Your task to perform on an android device: turn smart compose on in the gmail app Image 0: 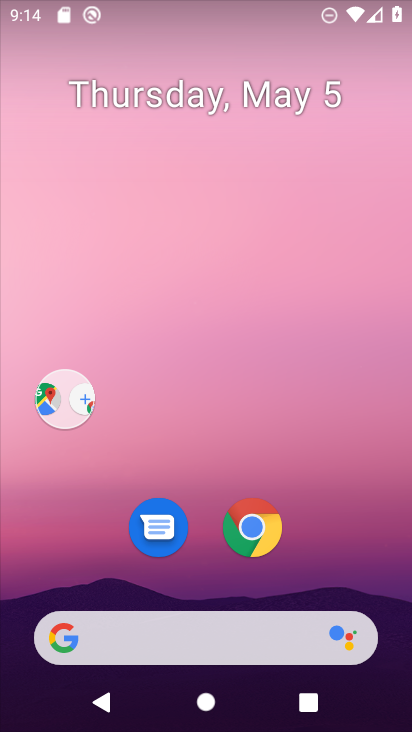
Step 0: drag from (392, 590) to (238, 4)
Your task to perform on an android device: turn smart compose on in the gmail app Image 1: 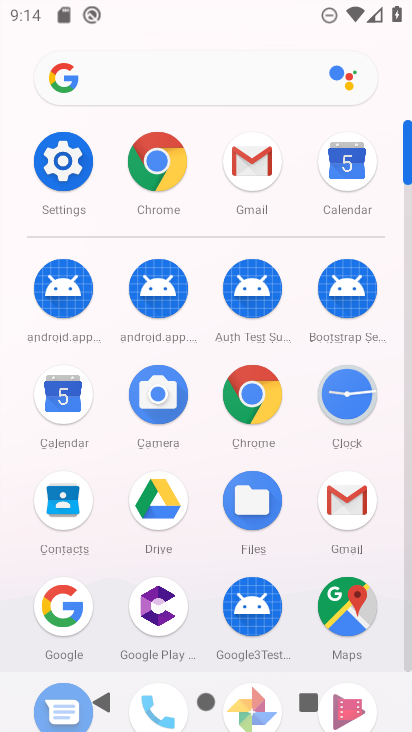
Step 1: click (343, 504)
Your task to perform on an android device: turn smart compose on in the gmail app Image 2: 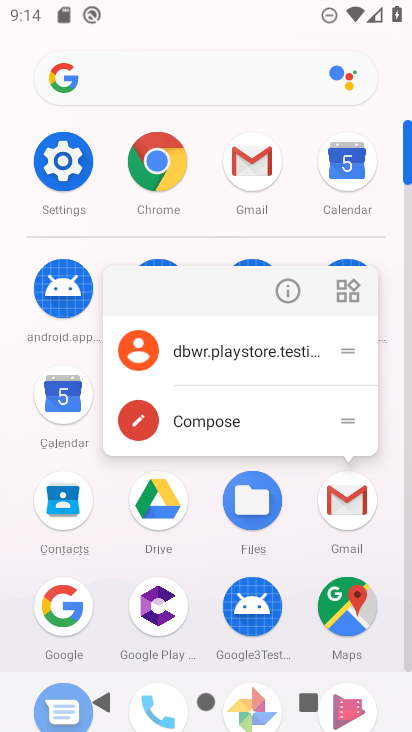
Step 2: click (343, 504)
Your task to perform on an android device: turn smart compose on in the gmail app Image 3: 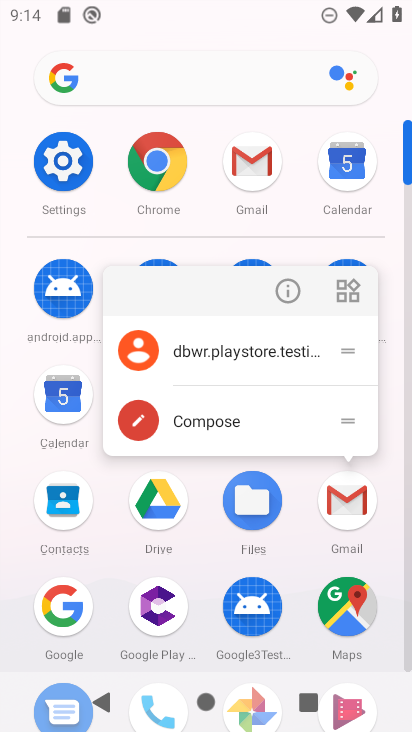
Step 3: click (243, 418)
Your task to perform on an android device: turn smart compose on in the gmail app Image 4: 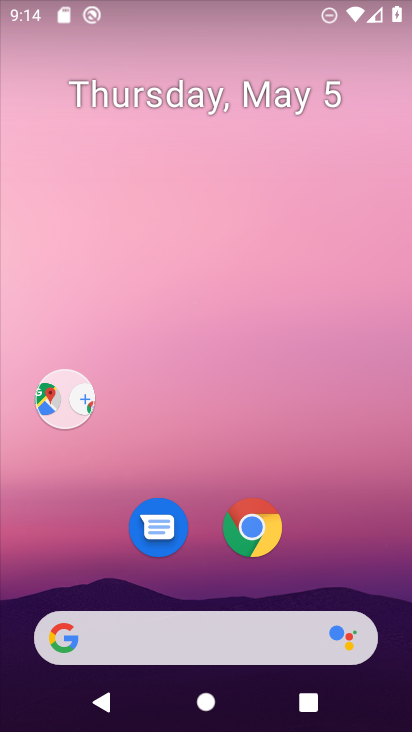
Step 4: drag from (364, 567) to (231, 235)
Your task to perform on an android device: turn smart compose on in the gmail app Image 5: 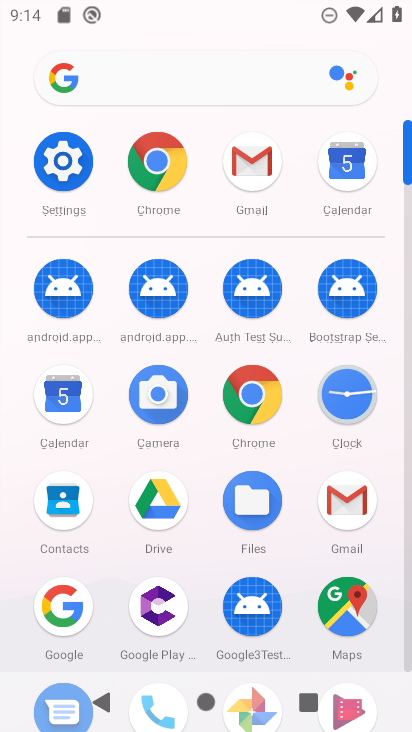
Step 5: click (339, 492)
Your task to perform on an android device: turn smart compose on in the gmail app Image 6: 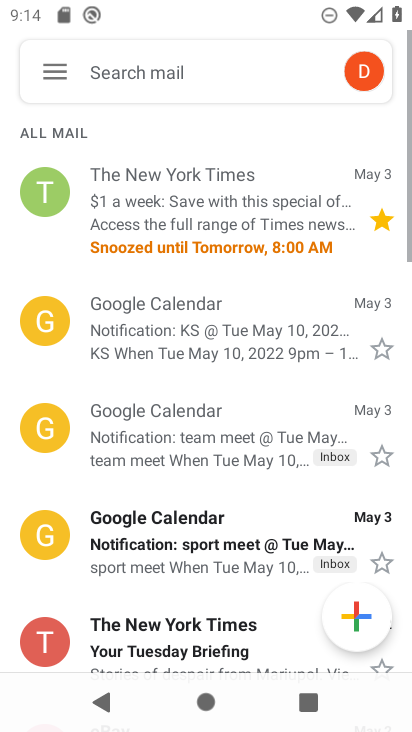
Step 6: click (339, 493)
Your task to perform on an android device: turn smart compose on in the gmail app Image 7: 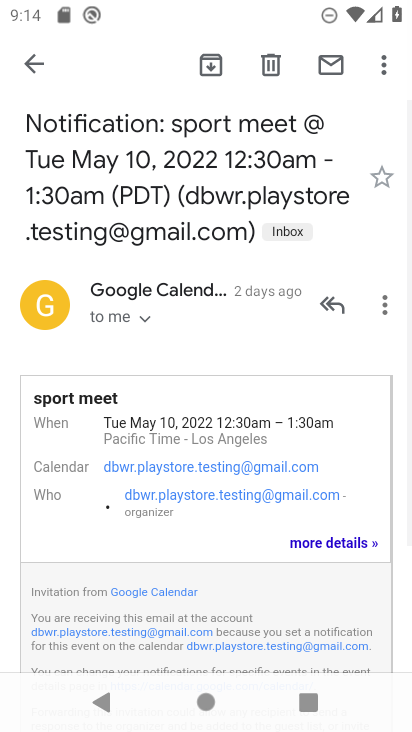
Step 7: click (25, 61)
Your task to perform on an android device: turn smart compose on in the gmail app Image 8: 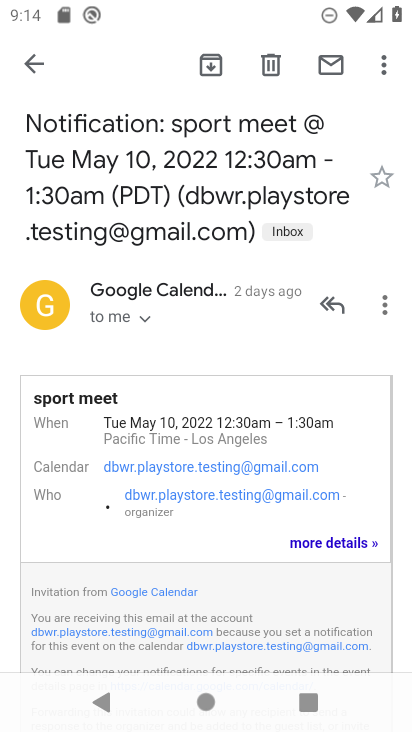
Step 8: click (30, 62)
Your task to perform on an android device: turn smart compose on in the gmail app Image 9: 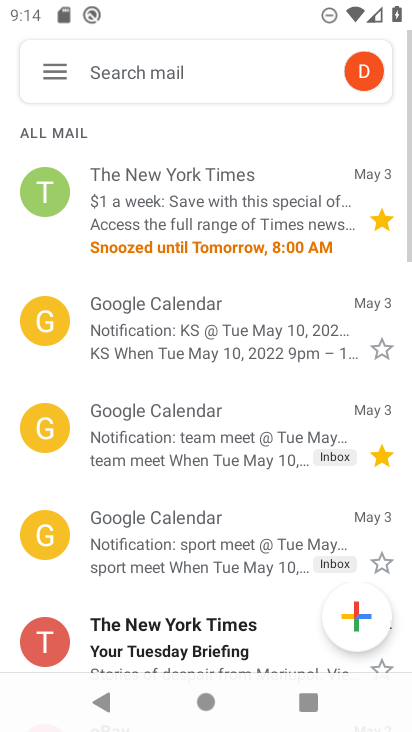
Step 9: click (46, 74)
Your task to perform on an android device: turn smart compose on in the gmail app Image 10: 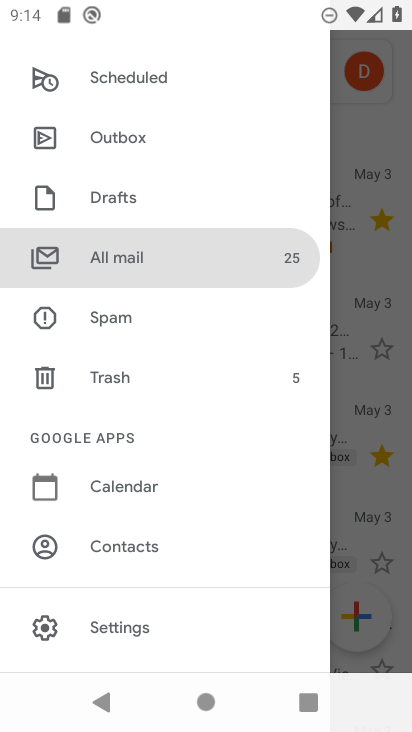
Step 10: click (120, 622)
Your task to perform on an android device: turn smart compose on in the gmail app Image 11: 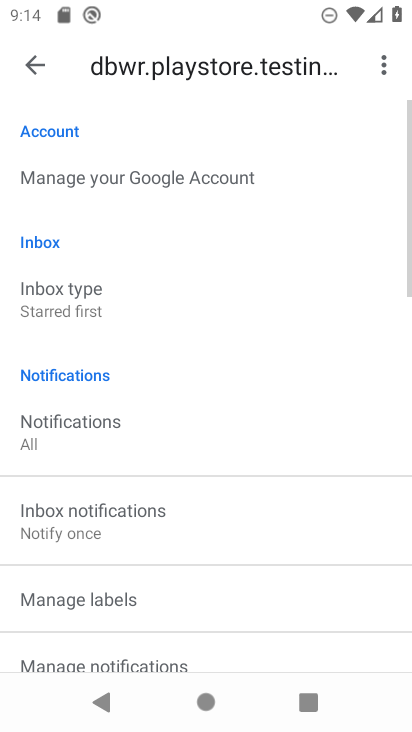
Step 11: drag from (134, 532) to (91, 10)
Your task to perform on an android device: turn smart compose on in the gmail app Image 12: 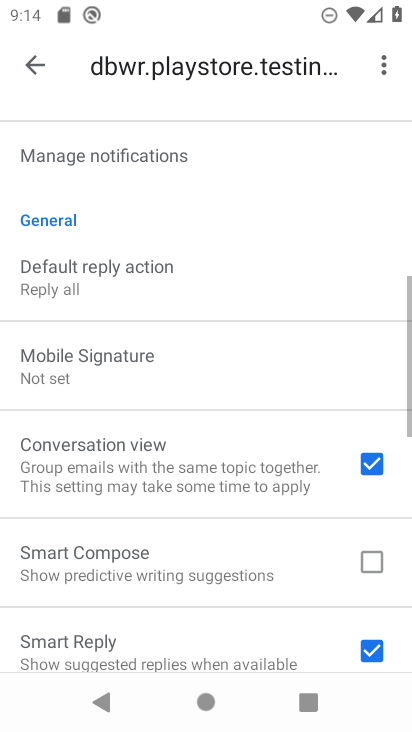
Step 12: drag from (144, 499) to (160, 15)
Your task to perform on an android device: turn smart compose on in the gmail app Image 13: 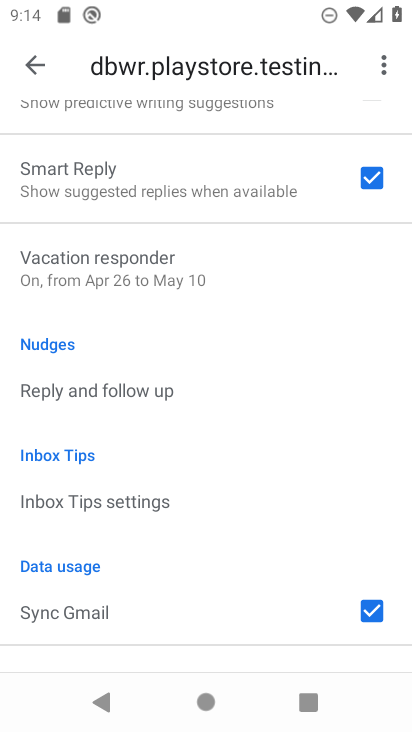
Step 13: drag from (177, 300) to (319, 560)
Your task to perform on an android device: turn smart compose on in the gmail app Image 14: 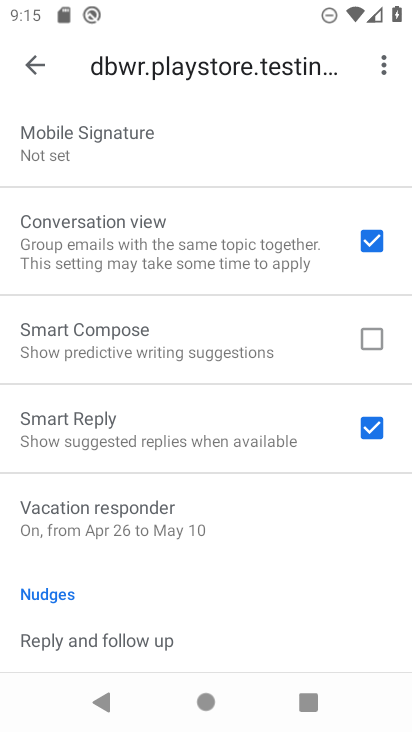
Step 14: click (364, 339)
Your task to perform on an android device: turn smart compose on in the gmail app Image 15: 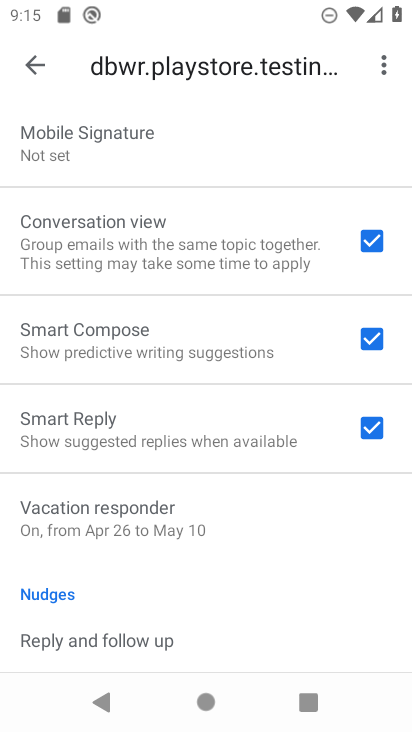
Step 15: task complete